Your task to perform on an android device: set the timer Image 0: 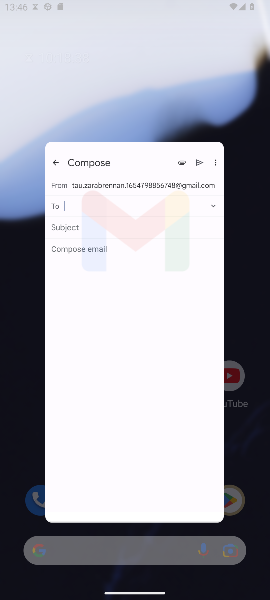
Step 0: press home button
Your task to perform on an android device: set the timer Image 1: 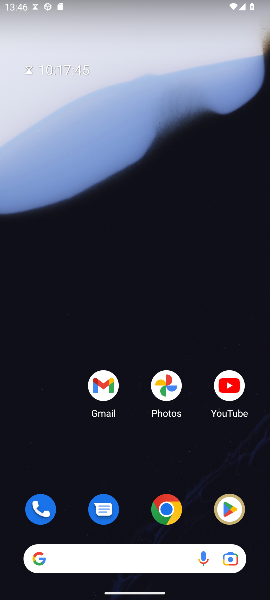
Step 1: drag from (156, 404) to (156, 99)
Your task to perform on an android device: set the timer Image 2: 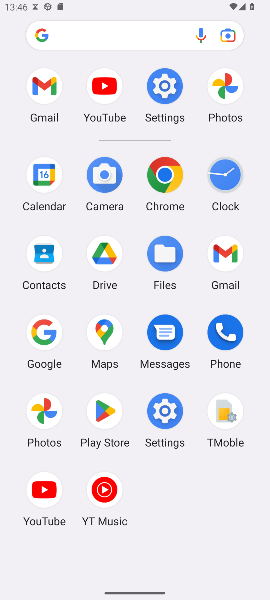
Step 2: click (221, 181)
Your task to perform on an android device: set the timer Image 3: 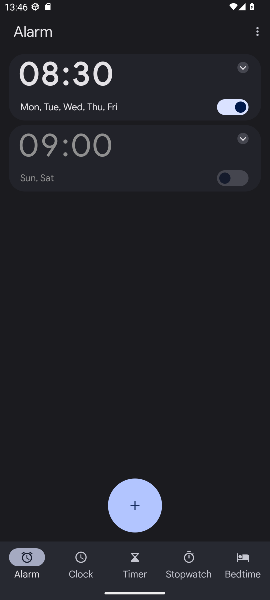
Step 3: click (134, 561)
Your task to perform on an android device: set the timer Image 4: 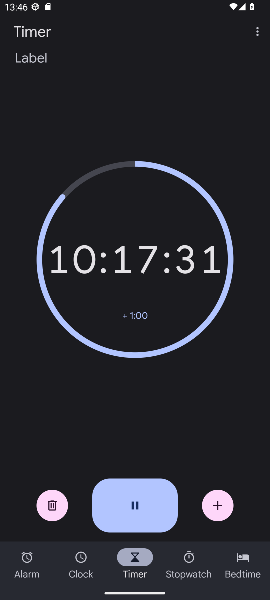
Step 4: task complete